Your task to perform on an android device: turn off priority inbox in the gmail app Image 0: 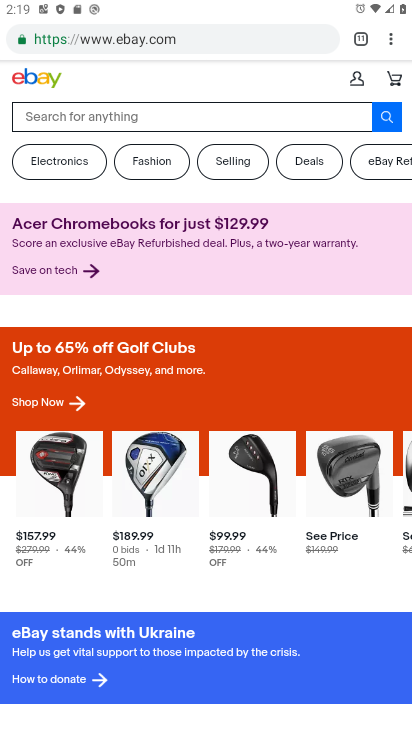
Step 0: press home button
Your task to perform on an android device: turn off priority inbox in the gmail app Image 1: 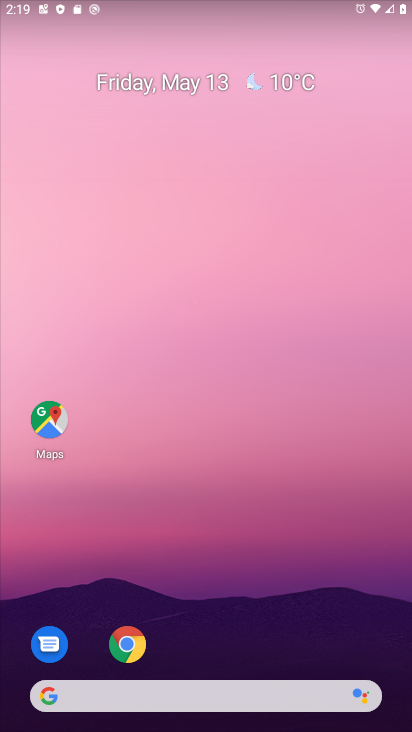
Step 1: drag from (212, 725) to (255, 137)
Your task to perform on an android device: turn off priority inbox in the gmail app Image 2: 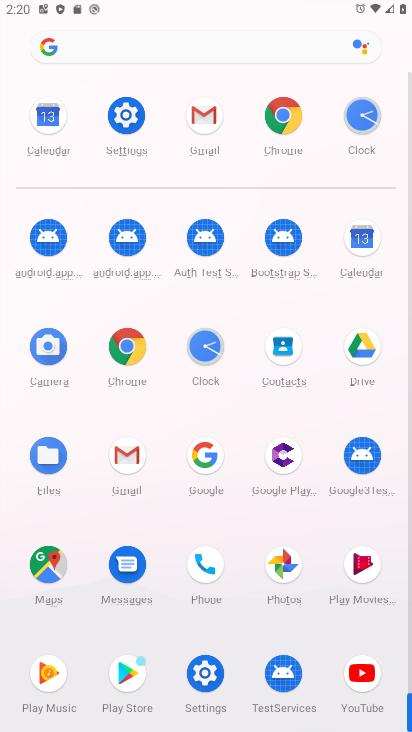
Step 2: click (202, 115)
Your task to perform on an android device: turn off priority inbox in the gmail app Image 3: 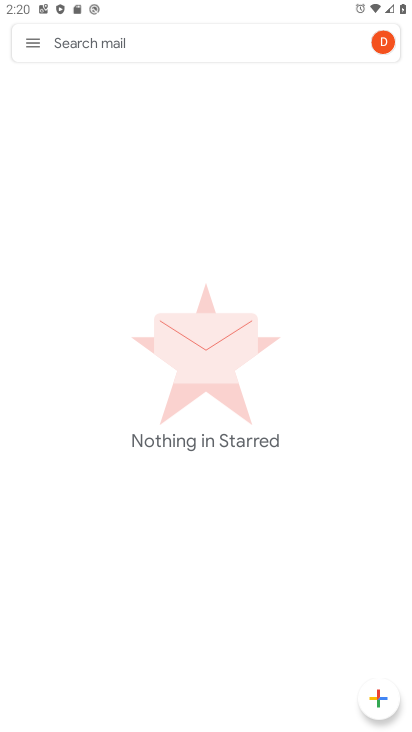
Step 3: click (29, 45)
Your task to perform on an android device: turn off priority inbox in the gmail app Image 4: 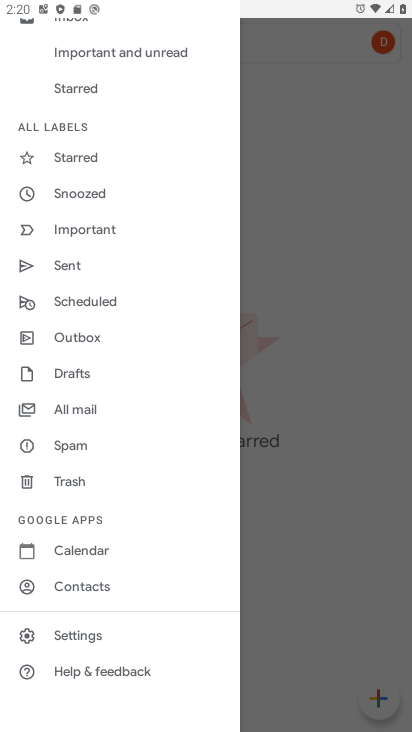
Step 4: click (83, 634)
Your task to perform on an android device: turn off priority inbox in the gmail app Image 5: 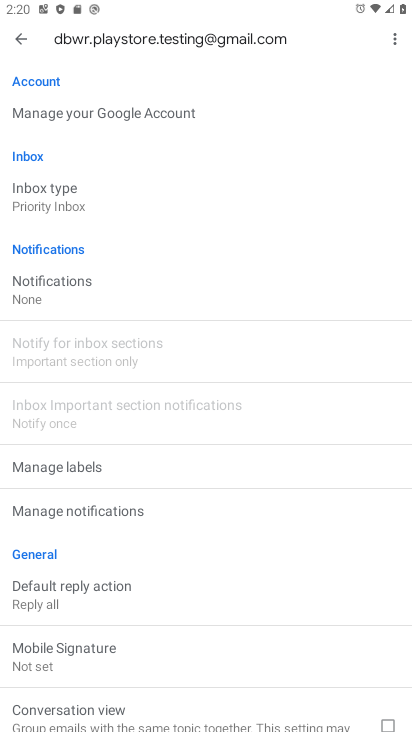
Step 5: click (54, 201)
Your task to perform on an android device: turn off priority inbox in the gmail app Image 6: 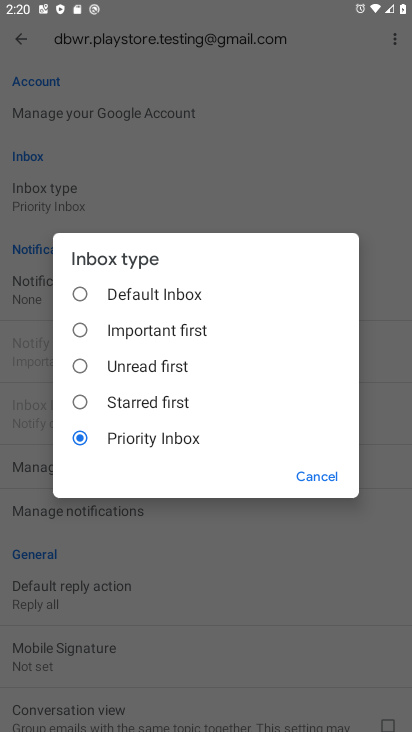
Step 6: click (76, 292)
Your task to perform on an android device: turn off priority inbox in the gmail app Image 7: 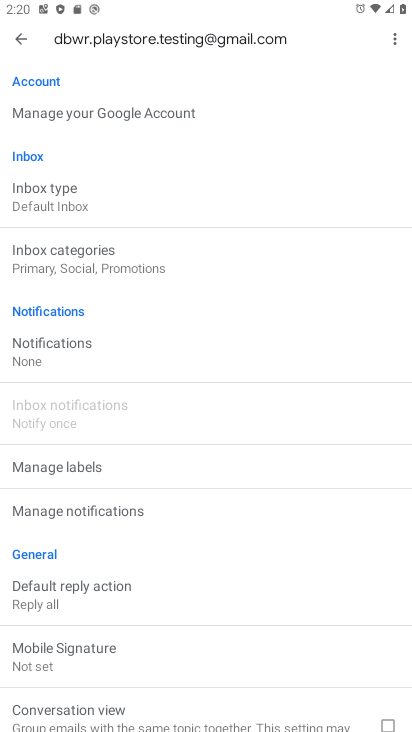
Step 7: task complete